Your task to perform on an android device: Go to network settings Image 0: 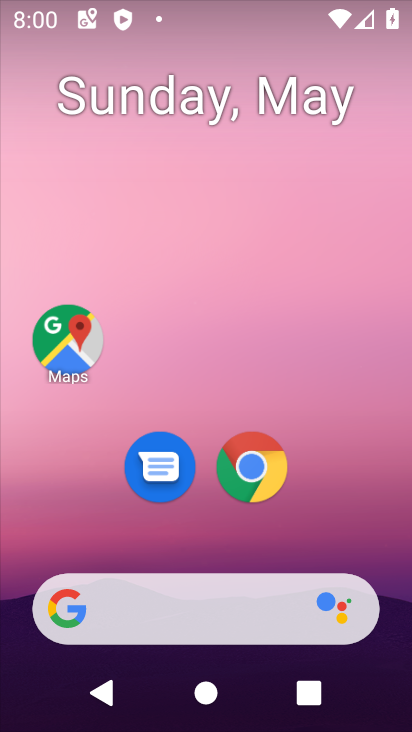
Step 0: drag from (14, 667) to (253, 108)
Your task to perform on an android device: Go to network settings Image 1: 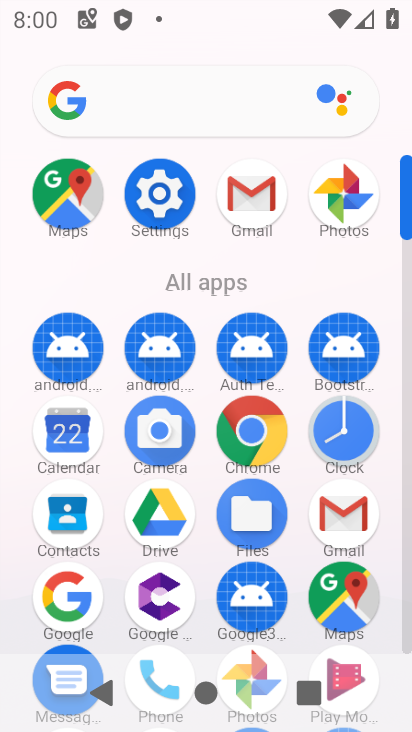
Step 1: click (149, 196)
Your task to perform on an android device: Go to network settings Image 2: 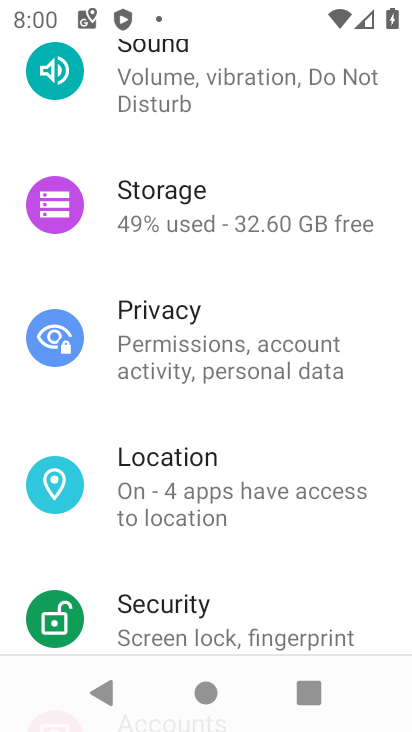
Step 2: drag from (265, 113) to (210, 636)
Your task to perform on an android device: Go to network settings Image 3: 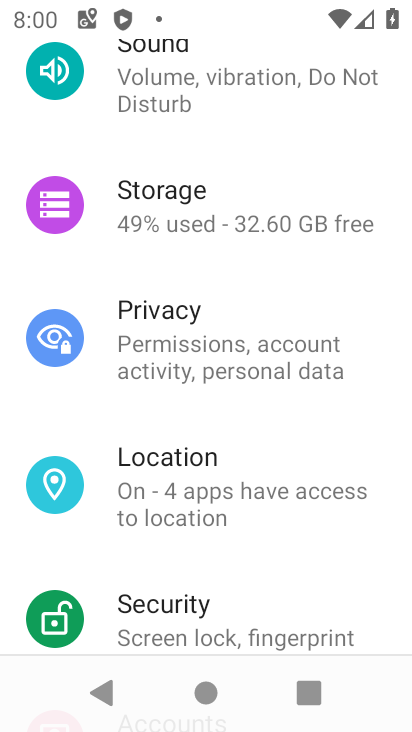
Step 3: drag from (161, 112) to (191, 636)
Your task to perform on an android device: Go to network settings Image 4: 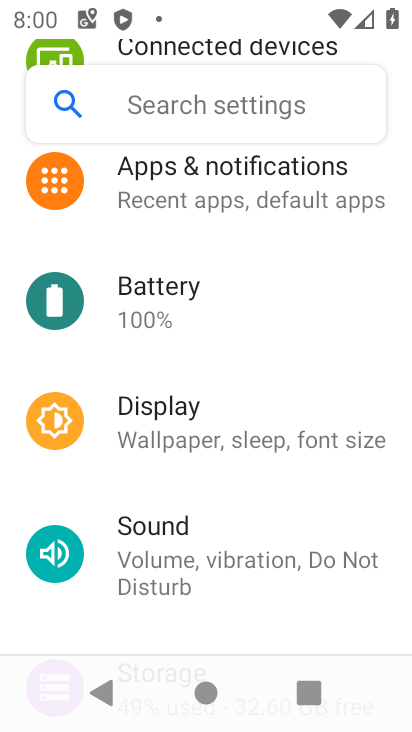
Step 4: drag from (212, 175) to (174, 675)
Your task to perform on an android device: Go to network settings Image 5: 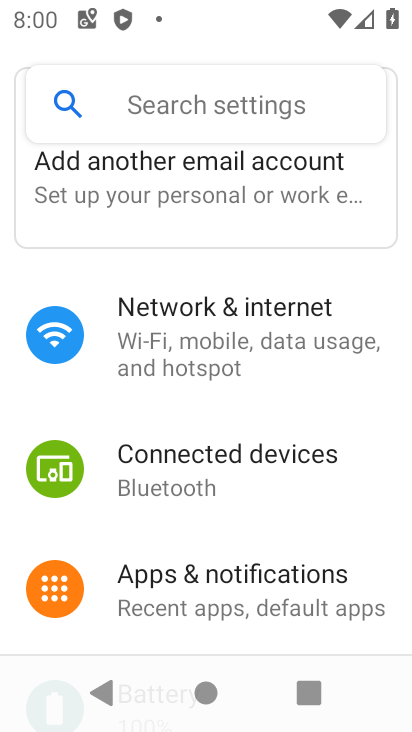
Step 5: drag from (212, 215) to (140, 731)
Your task to perform on an android device: Go to network settings Image 6: 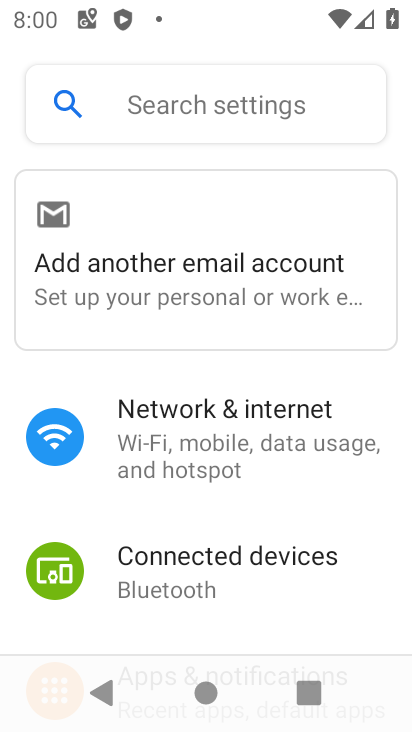
Step 6: click (169, 418)
Your task to perform on an android device: Go to network settings Image 7: 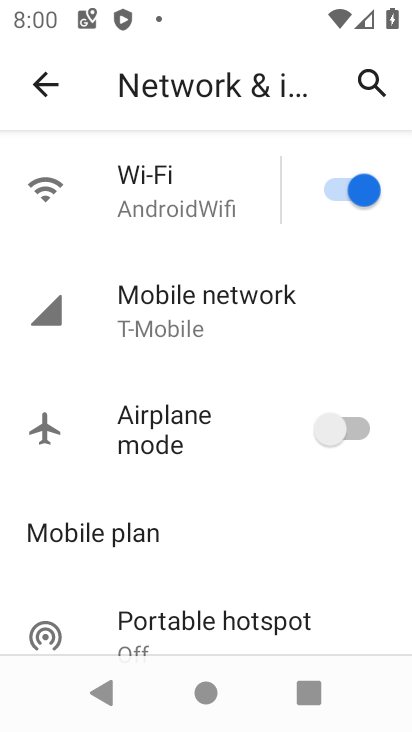
Step 7: click (215, 304)
Your task to perform on an android device: Go to network settings Image 8: 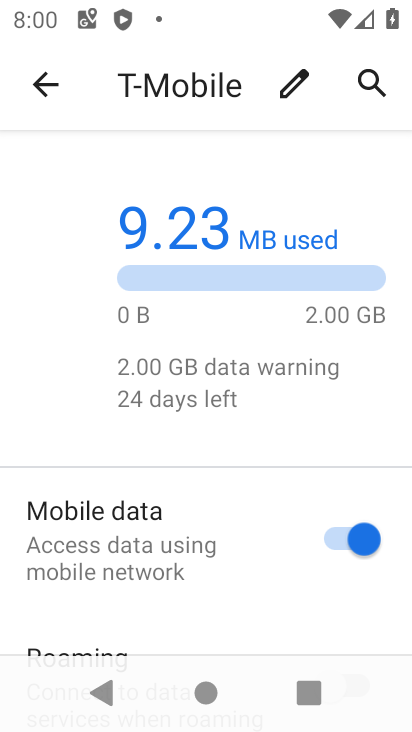
Step 8: task complete